Your task to perform on an android device: Open settings Image 0: 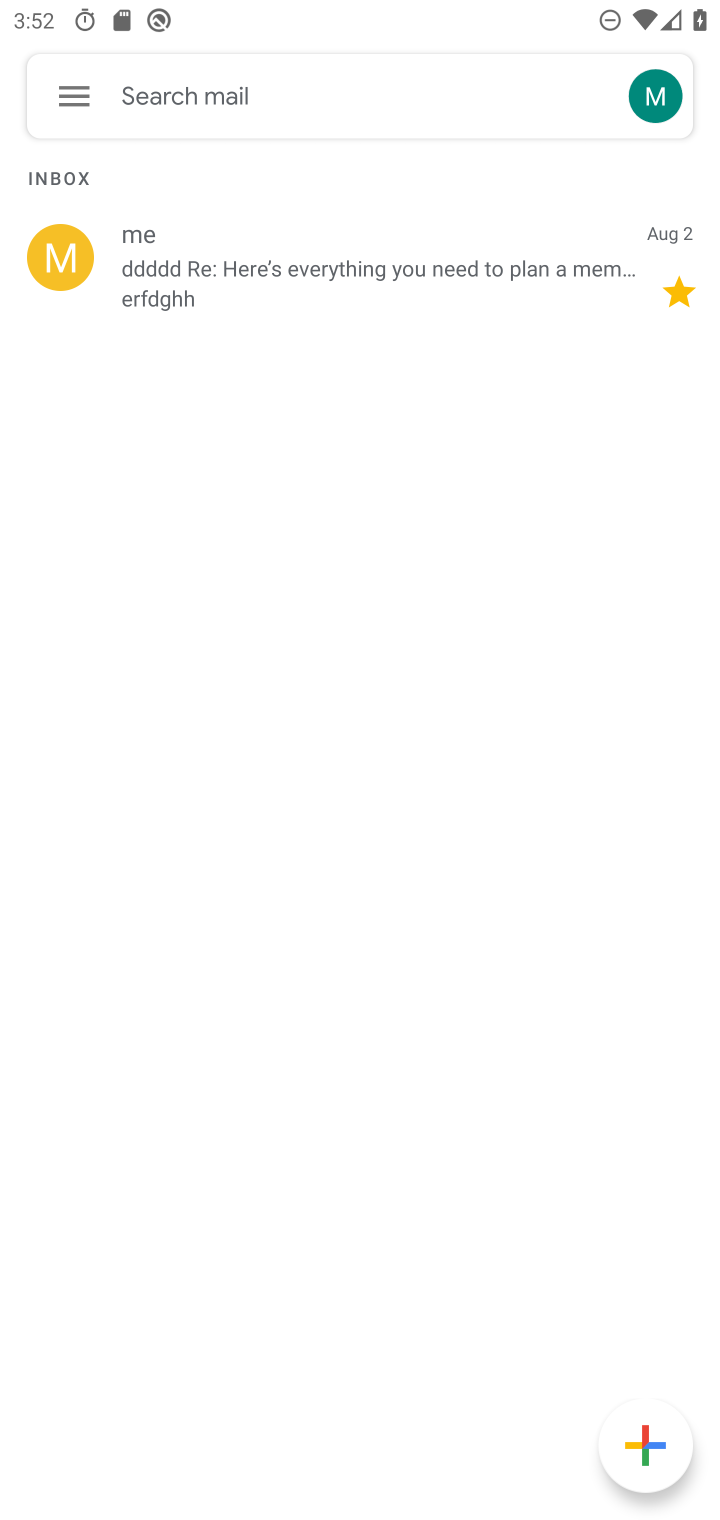
Step 0: press home button
Your task to perform on an android device: Open settings Image 1: 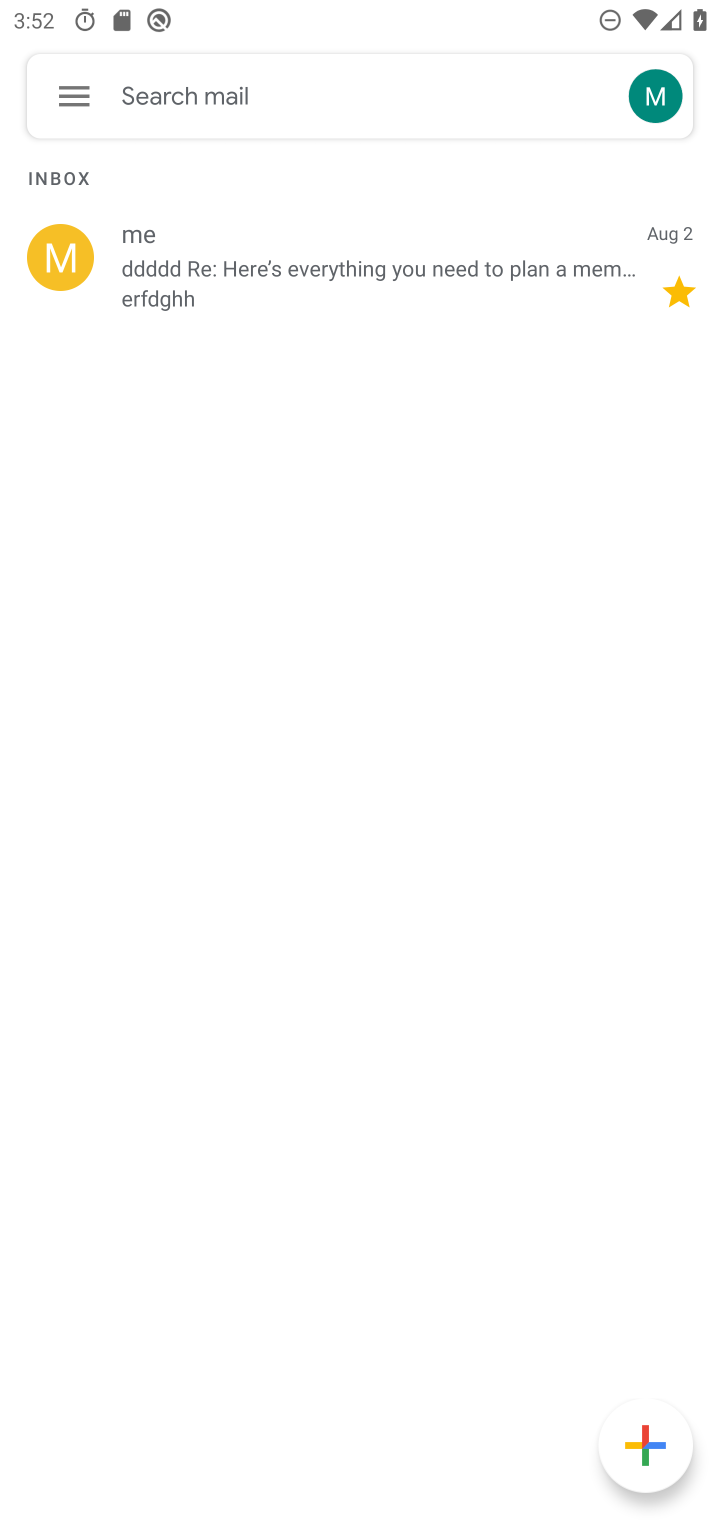
Step 1: press home button
Your task to perform on an android device: Open settings Image 2: 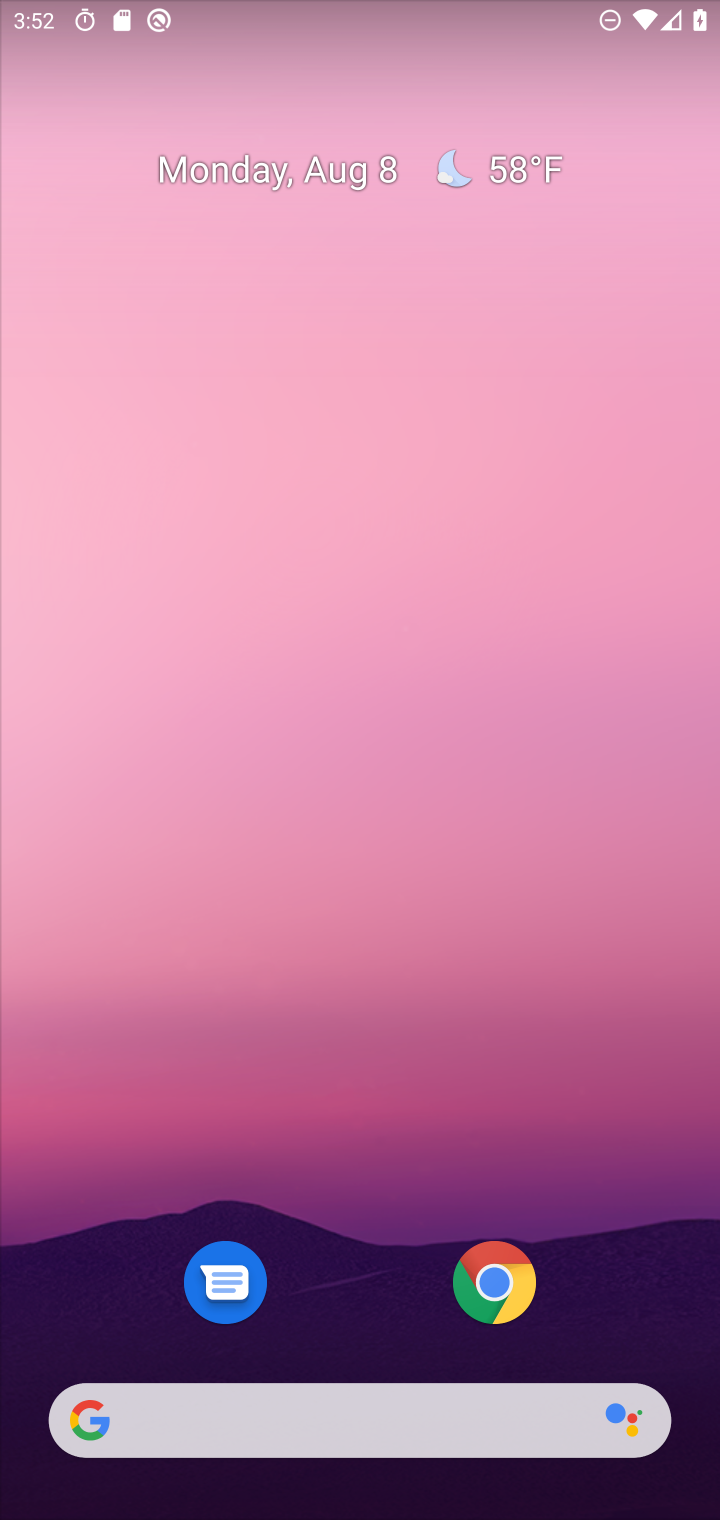
Step 2: drag from (406, 1271) to (642, 277)
Your task to perform on an android device: Open settings Image 3: 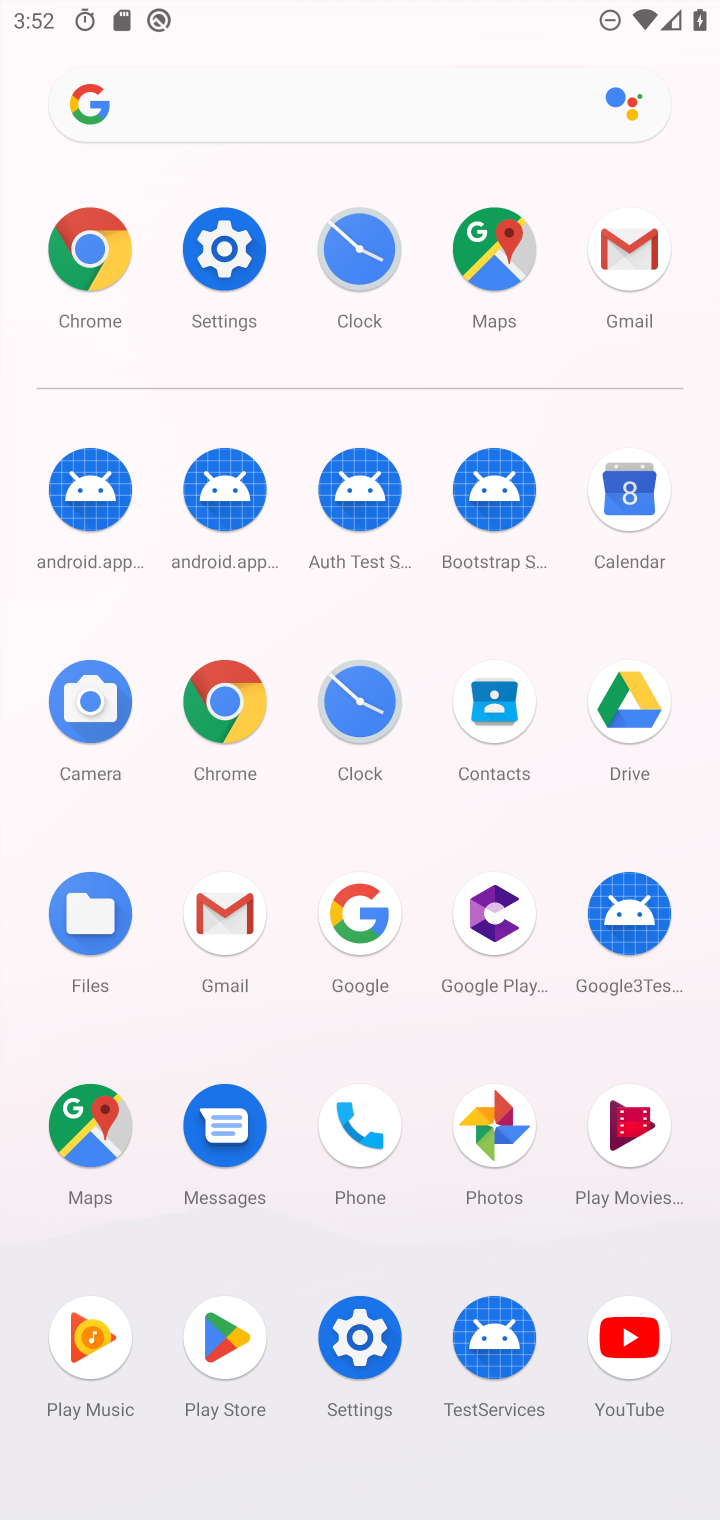
Step 3: click (236, 242)
Your task to perform on an android device: Open settings Image 4: 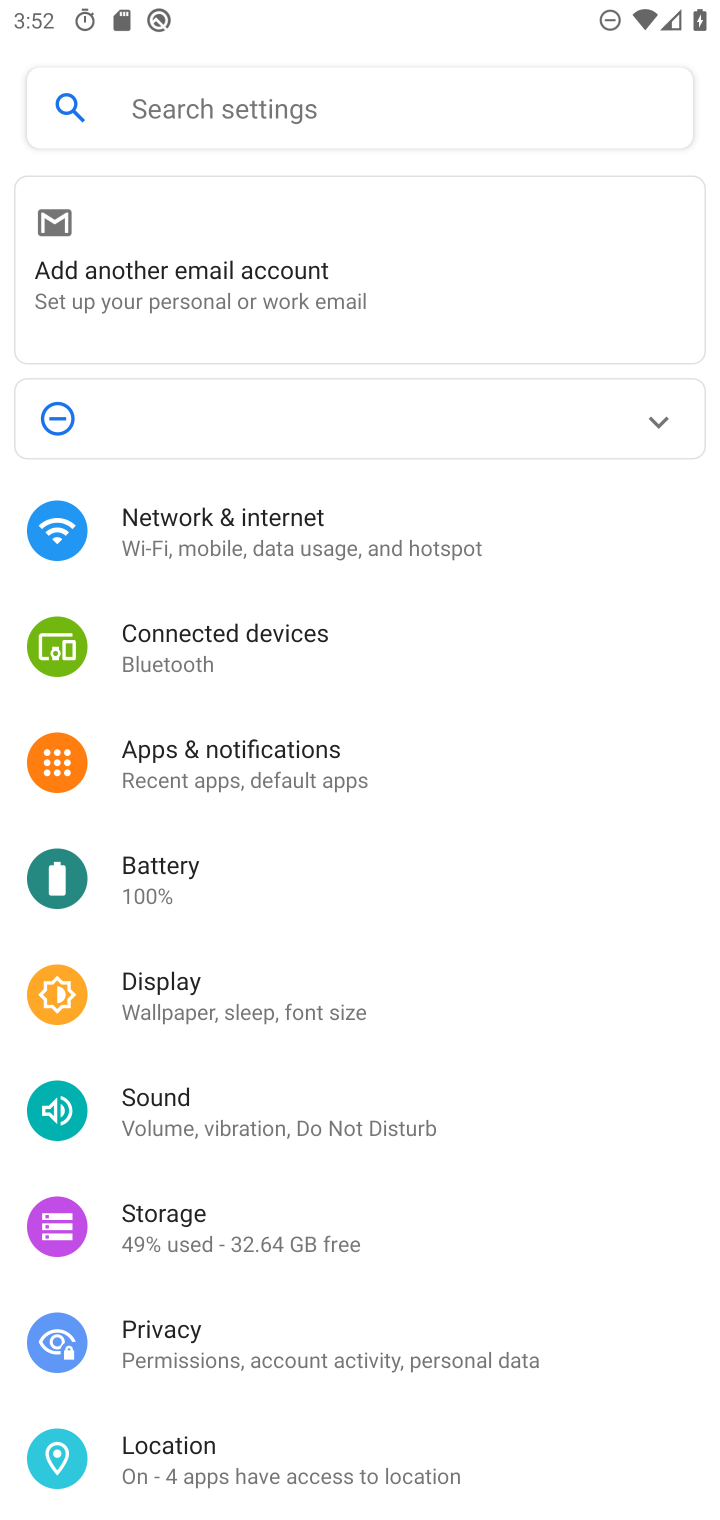
Step 4: task complete